Your task to perform on an android device: Open Google Chrome and open the bookmarks view Image 0: 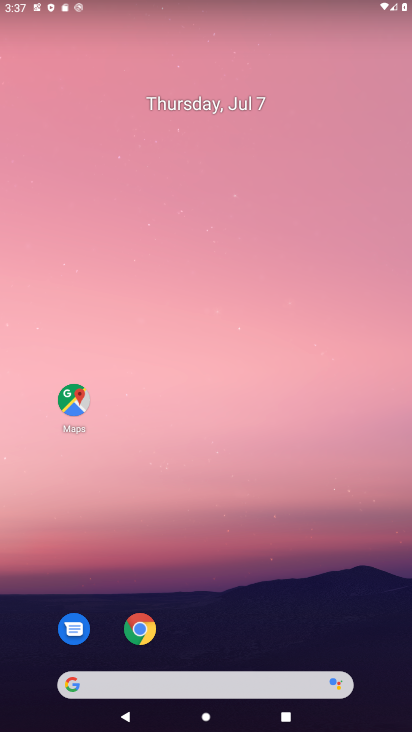
Step 0: drag from (225, 652) to (243, 353)
Your task to perform on an android device: Open Google Chrome and open the bookmarks view Image 1: 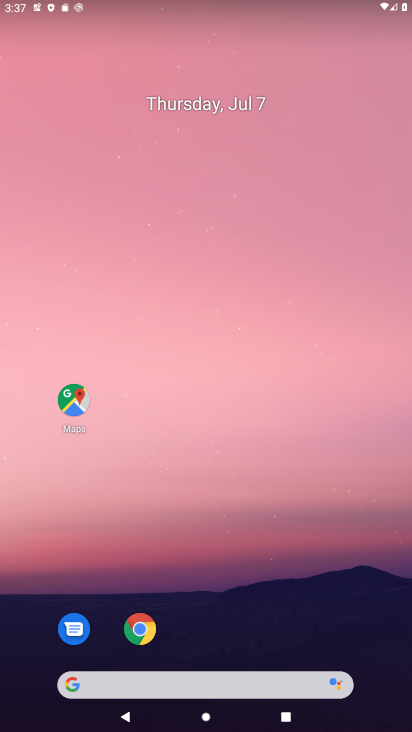
Step 1: drag from (222, 659) to (228, 296)
Your task to perform on an android device: Open Google Chrome and open the bookmarks view Image 2: 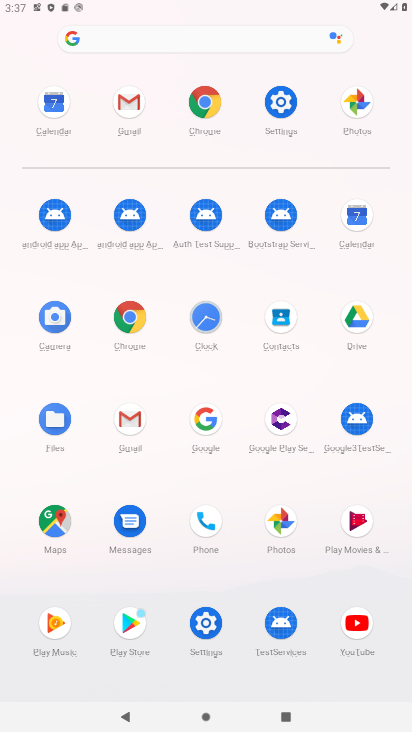
Step 2: click (139, 315)
Your task to perform on an android device: Open Google Chrome and open the bookmarks view Image 3: 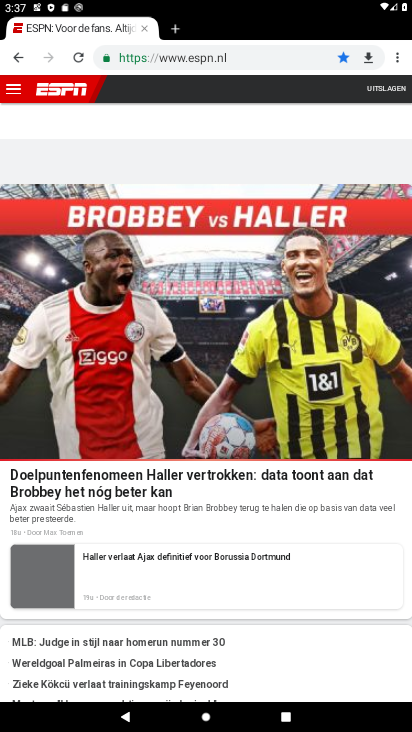
Step 3: click (393, 55)
Your task to perform on an android device: Open Google Chrome and open the bookmarks view Image 4: 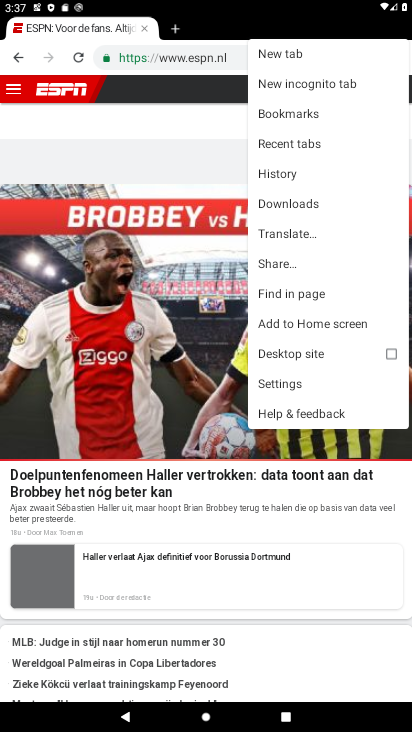
Step 4: click (301, 110)
Your task to perform on an android device: Open Google Chrome and open the bookmarks view Image 5: 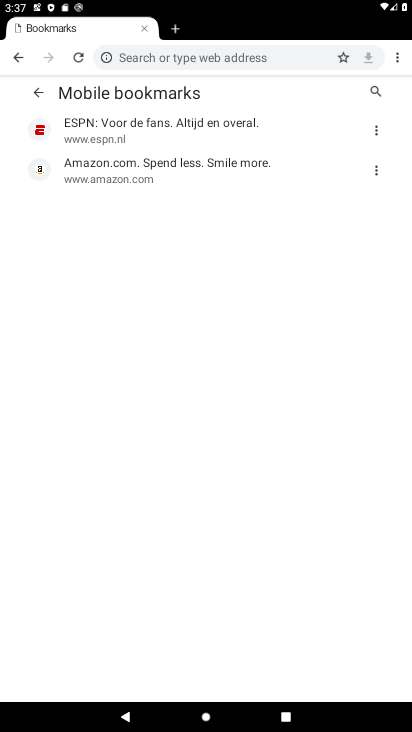
Step 5: task complete